Your task to perform on an android device: show emergency info Image 0: 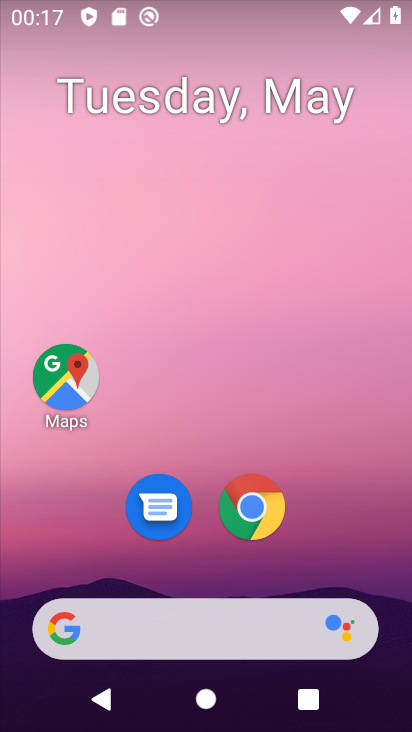
Step 0: press home button
Your task to perform on an android device: show emergency info Image 1: 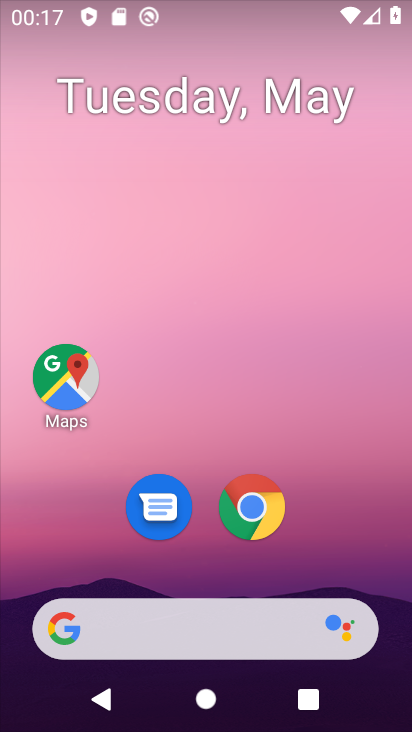
Step 1: drag from (206, 603) to (250, 438)
Your task to perform on an android device: show emergency info Image 2: 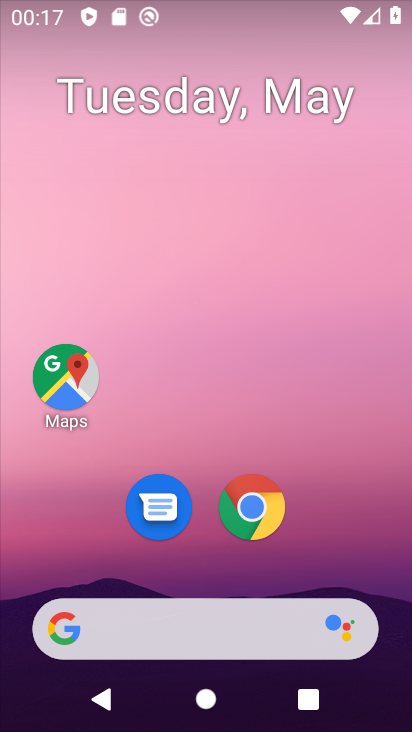
Step 2: drag from (201, 604) to (260, 217)
Your task to perform on an android device: show emergency info Image 3: 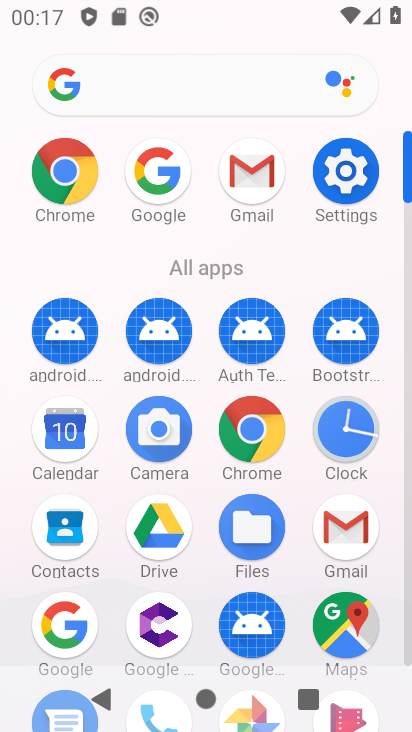
Step 3: click (337, 166)
Your task to perform on an android device: show emergency info Image 4: 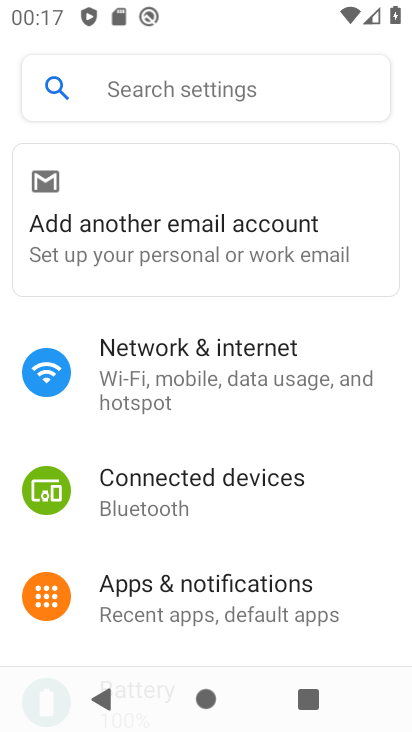
Step 4: drag from (207, 645) to (230, 323)
Your task to perform on an android device: show emergency info Image 5: 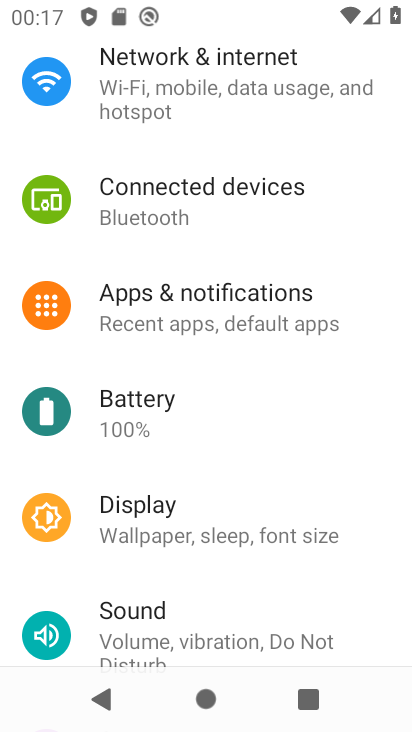
Step 5: drag from (248, 631) to (306, 270)
Your task to perform on an android device: show emergency info Image 6: 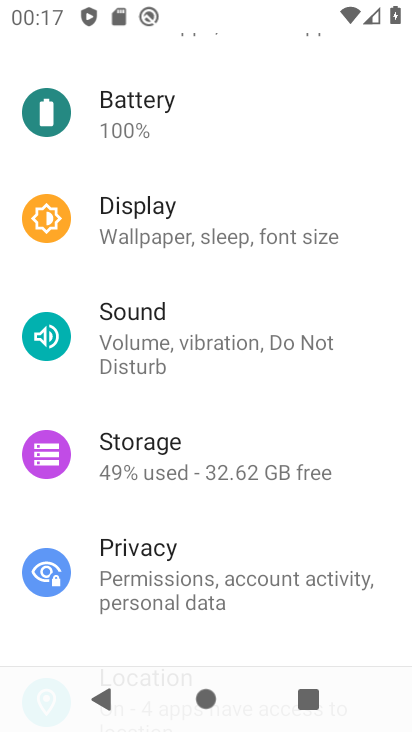
Step 6: drag from (210, 605) to (211, 294)
Your task to perform on an android device: show emergency info Image 7: 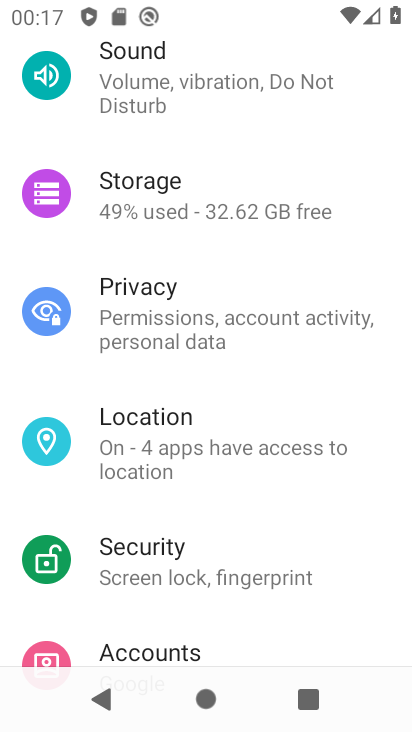
Step 7: drag from (173, 615) to (213, 237)
Your task to perform on an android device: show emergency info Image 8: 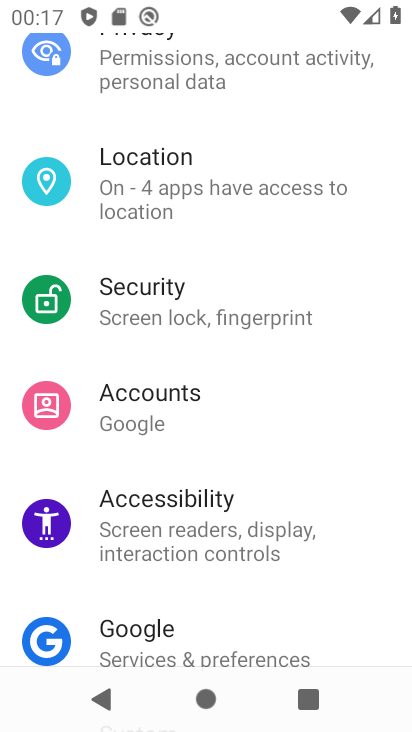
Step 8: drag from (176, 604) to (182, 237)
Your task to perform on an android device: show emergency info Image 9: 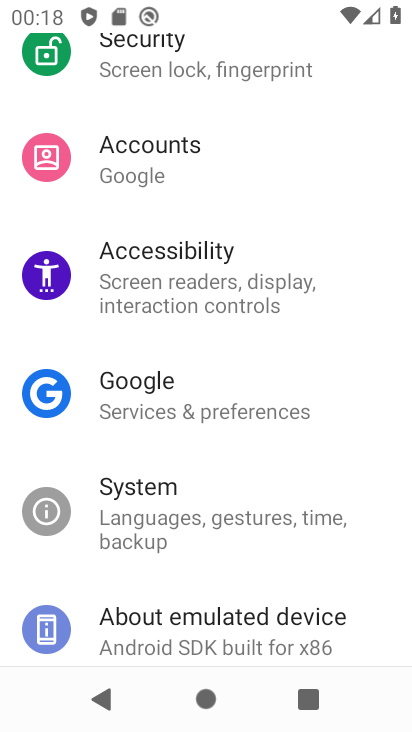
Step 9: click (135, 639)
Your task to perform on an android device: show emergency info Image 10: 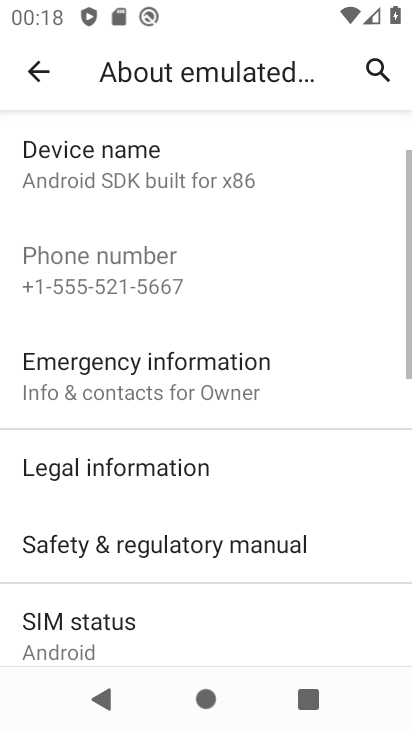
Step 10: click (154, 375)
Your task to perform on an android device: show emergency info Image 11: 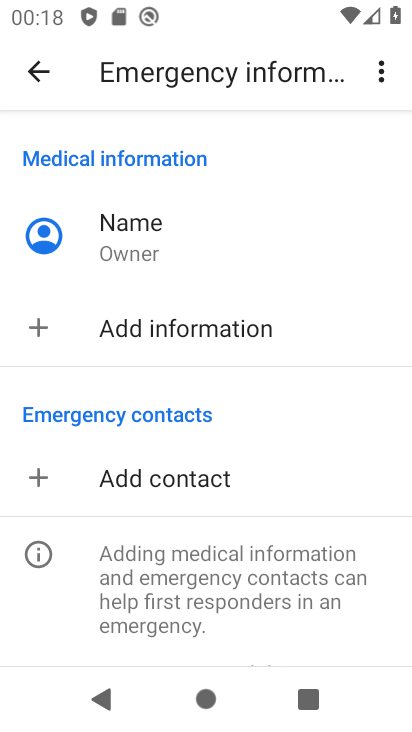
Step 11: task complete